Your task to perform on an android device: What is the news today? Image 0: 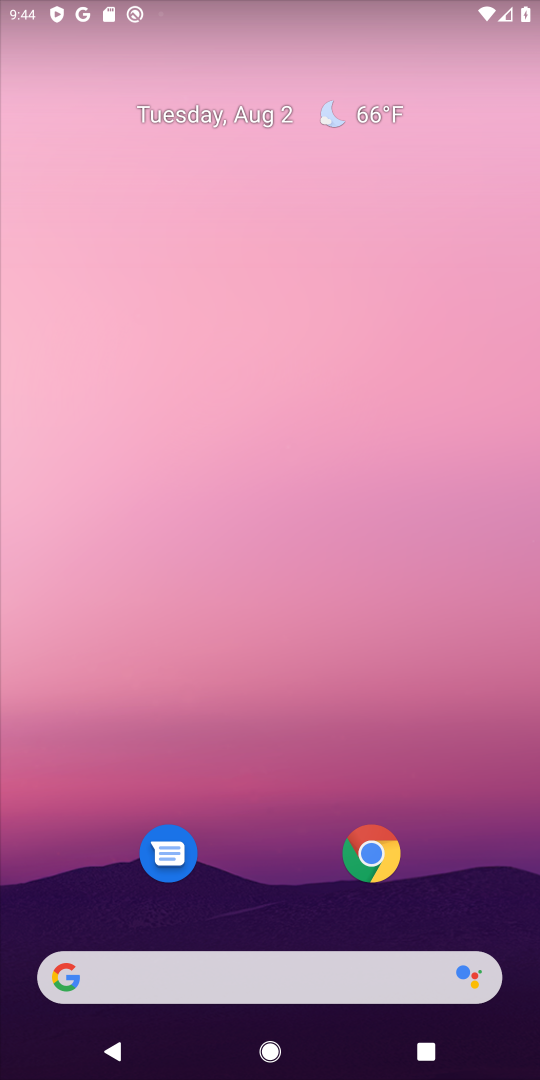
Step 0: click (384, 861)
Your task to perform on an android device: What is the news today? Image 1: 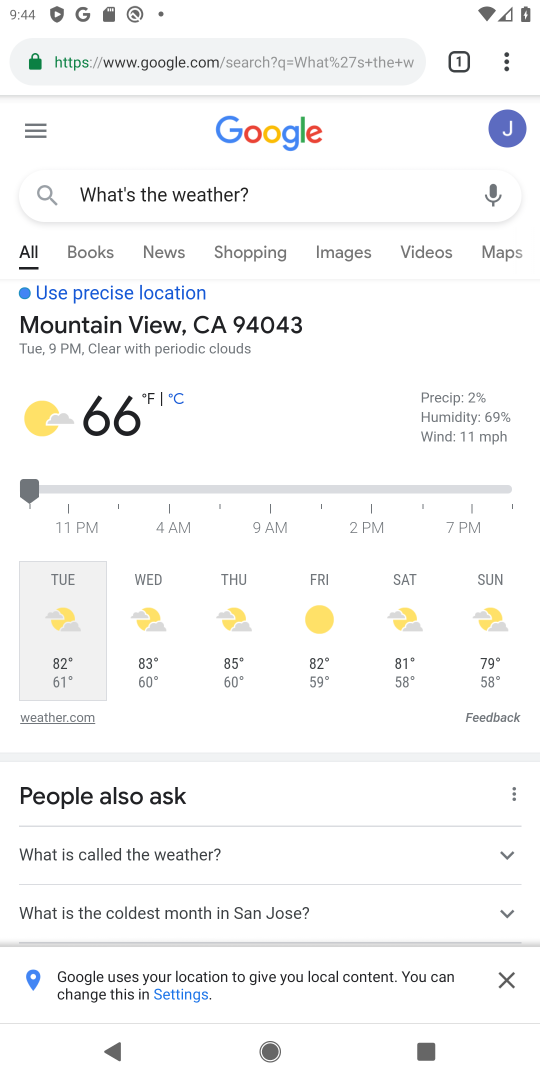
Step 1: click (263, 68)
Your task to perform on an android device: What is the news today? Image 2: 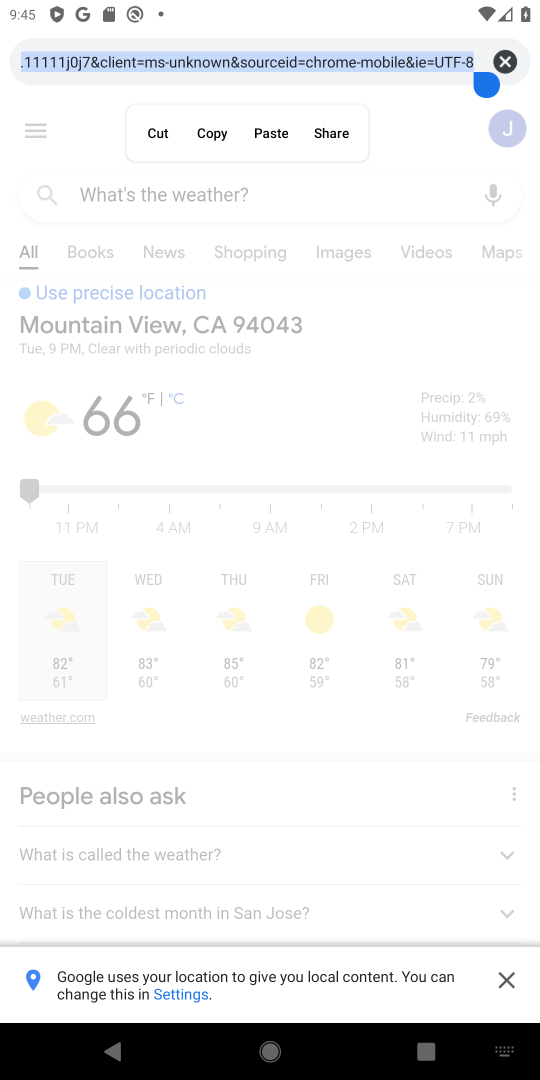
Step 2: type "What is the news today?"
Your task to perform on an android device: What is the news today? Image 3: 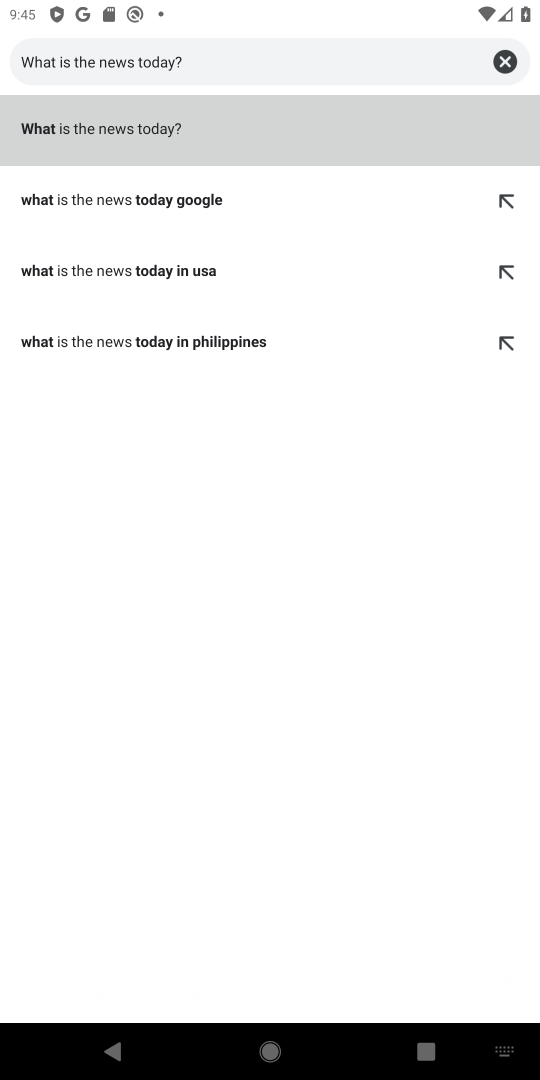
Step 3: click (139, 139)
Your task to perform on an android device: What is the news today? Image 4: 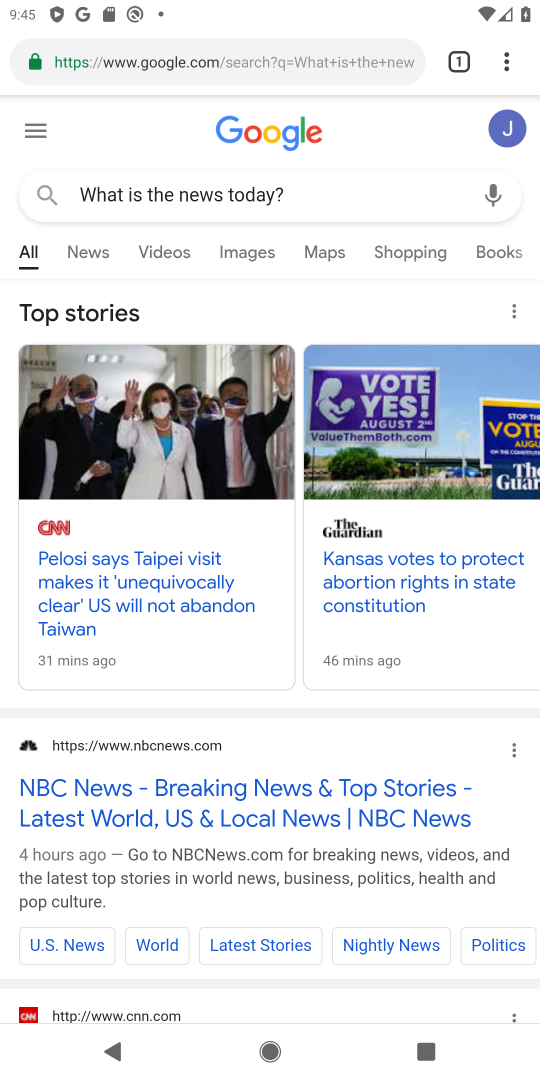
Step 4: task complete